Your task to perform on an android device: Open Chrome and go to settings Image 0: 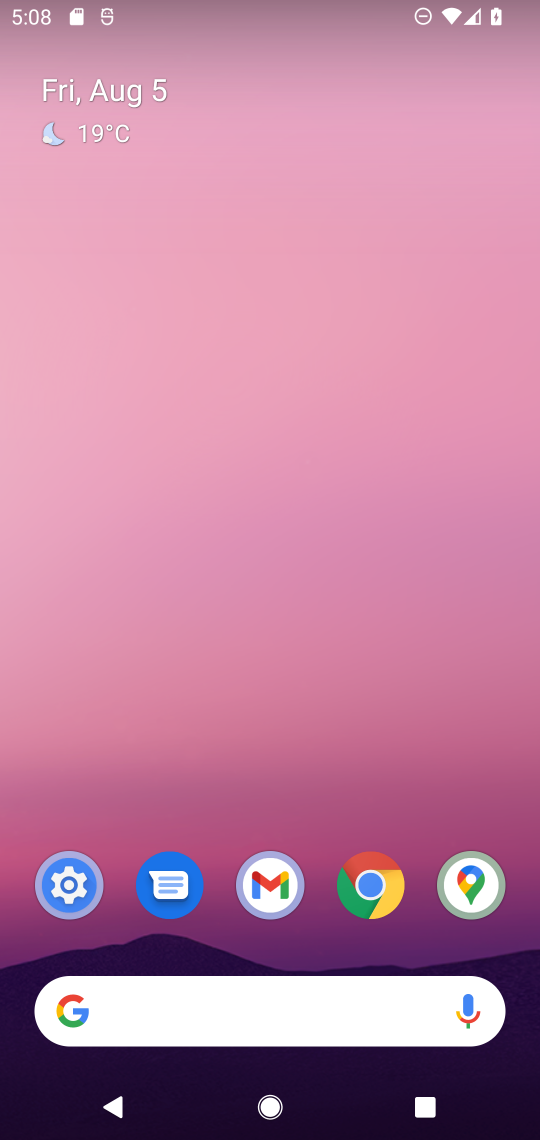
Step 0: click (374, 885)
Your task to perform on an android device: Open Chrome and go to settings Image 1: 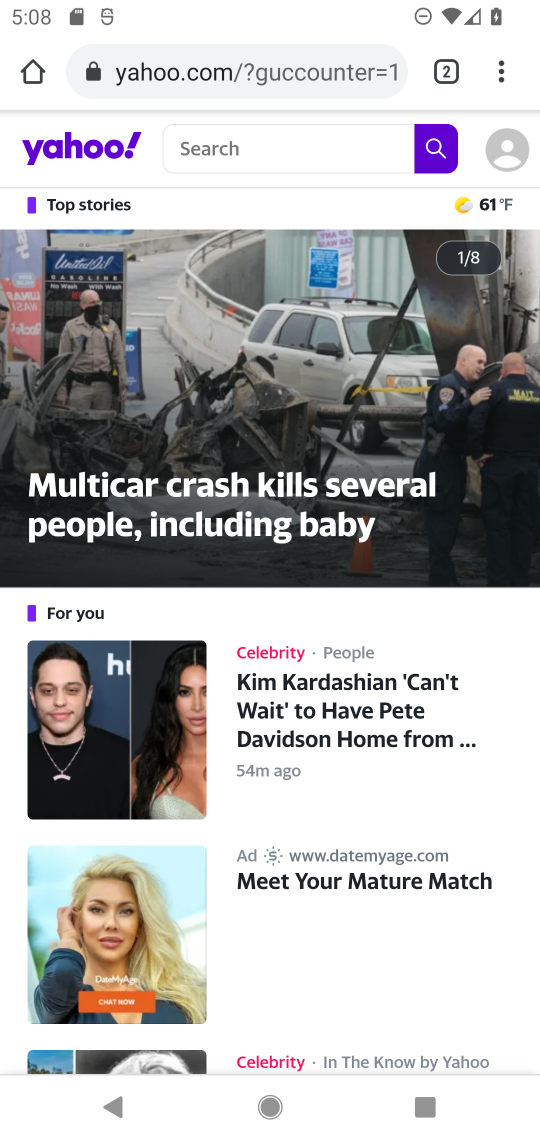
Step 1: click (500, 76)
Your task to perform on an android device: Open Chrome and go to settings Image 2: 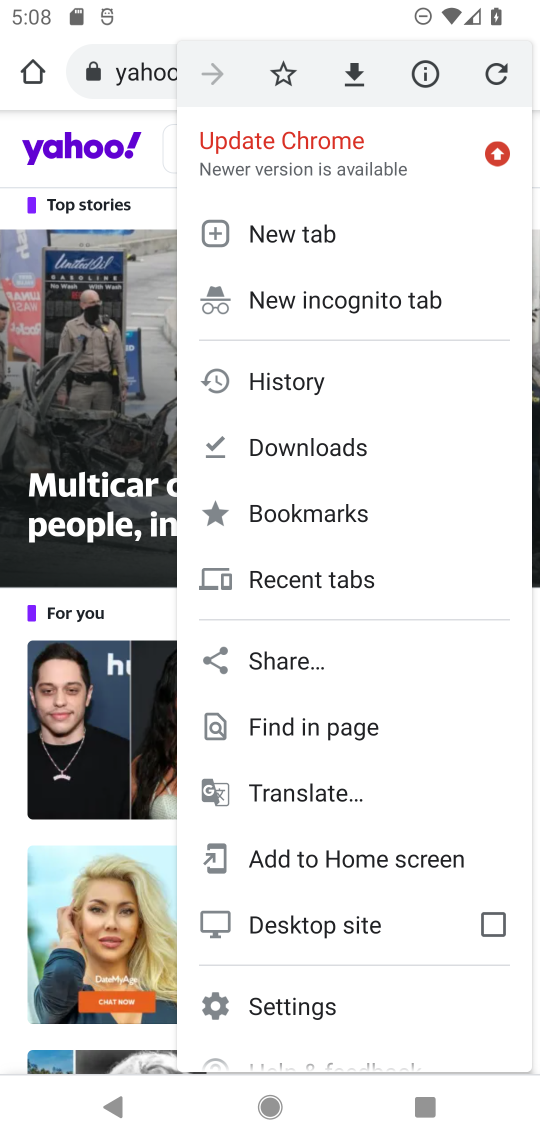
Step 2: click (284, 1002)
Your task to perform on an android device: Open Chrome and go to settings Image 3: 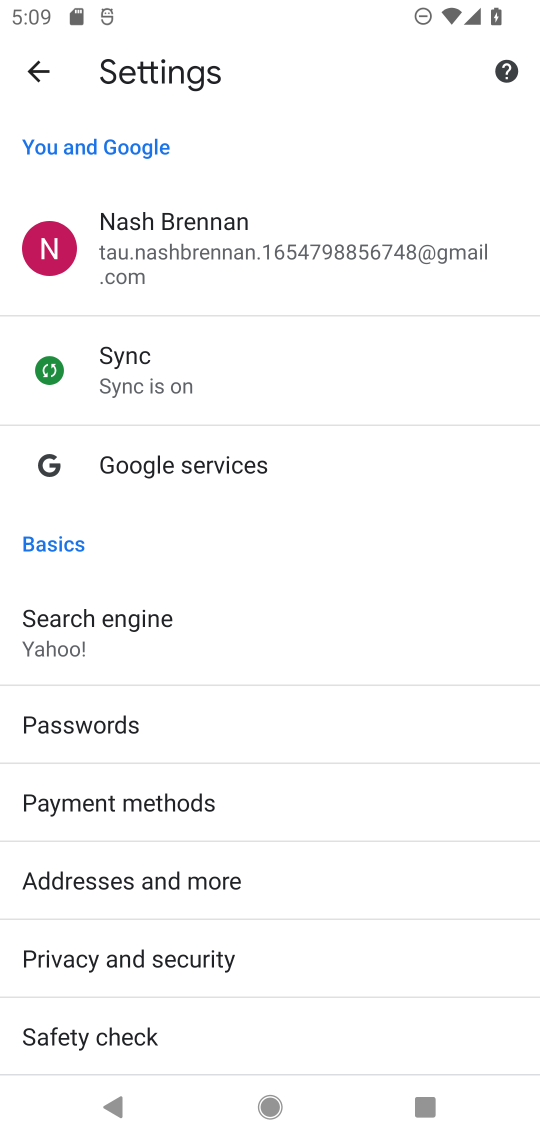
Step 3: task complete